Your task to perform on an android device: Go to notification settings Image 0: 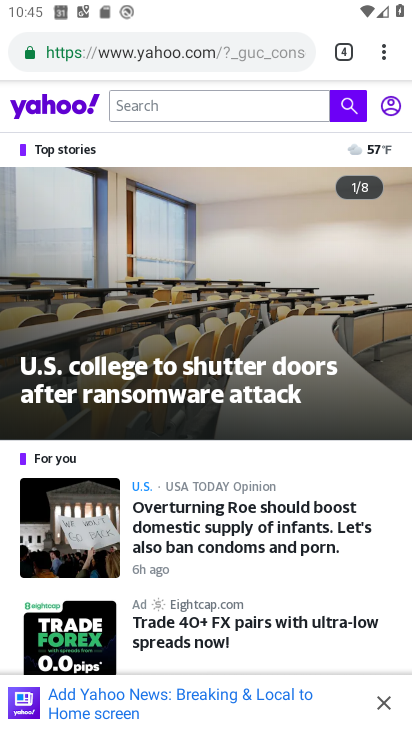
Step 0: press home button
Your task to perform on an android device: Go to notification settings Image 1: 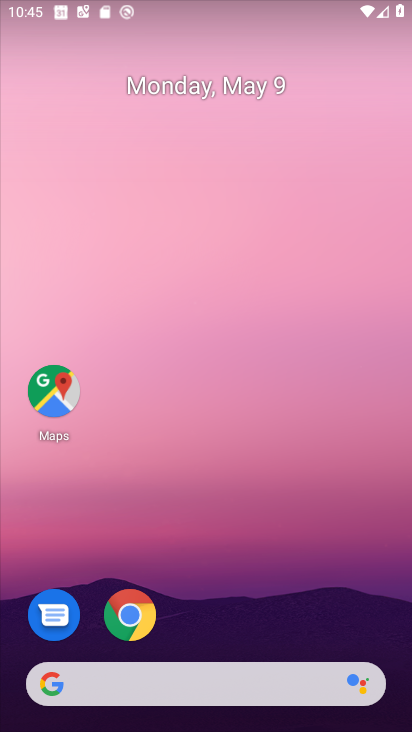
Step 1: drag from (251, 714) to (302, 232)
Your task to perform on an android device: Go to notification settings Image 2: 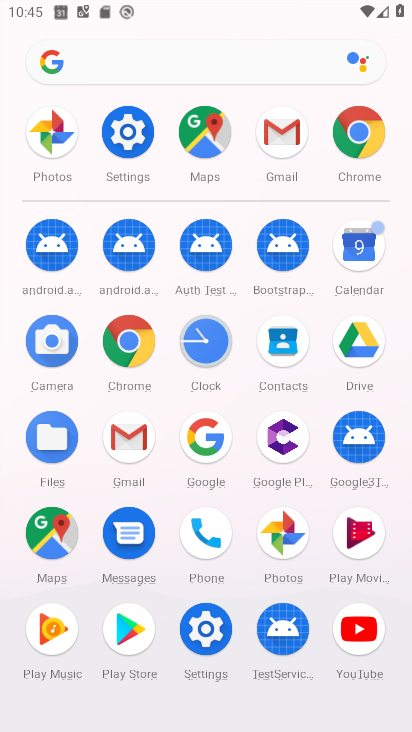
Step 2: click (141, 139)
Your task to perform on an android device: Go to notification settings Image 3: 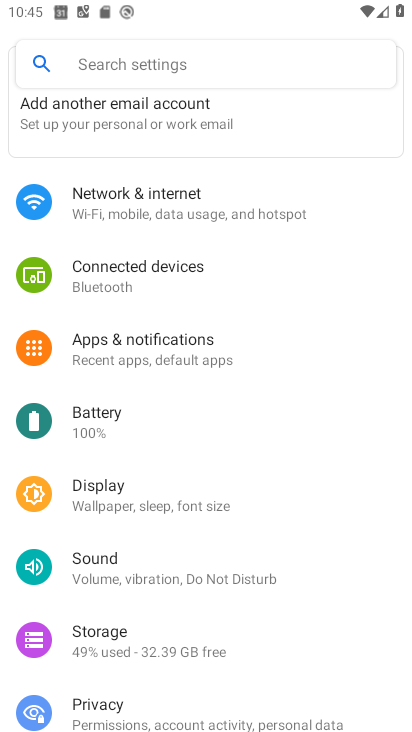
Step 3: click (111, 63)
Your task to perform on an android device: Go to notification settings Image 4: 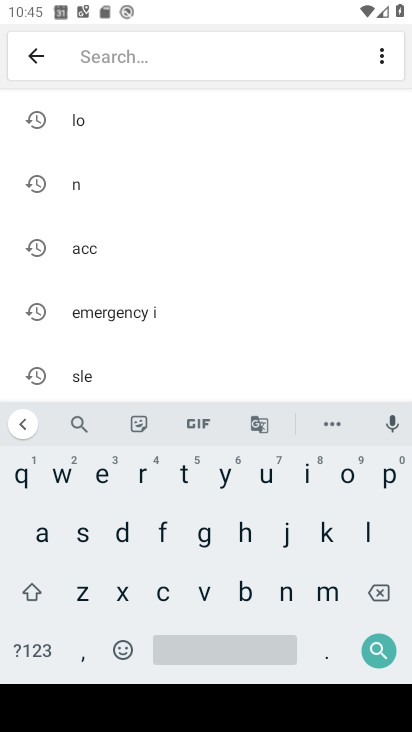
Step 4: click (286, 590)
Your task to perform on an android device: Go to notification settings Image 5: 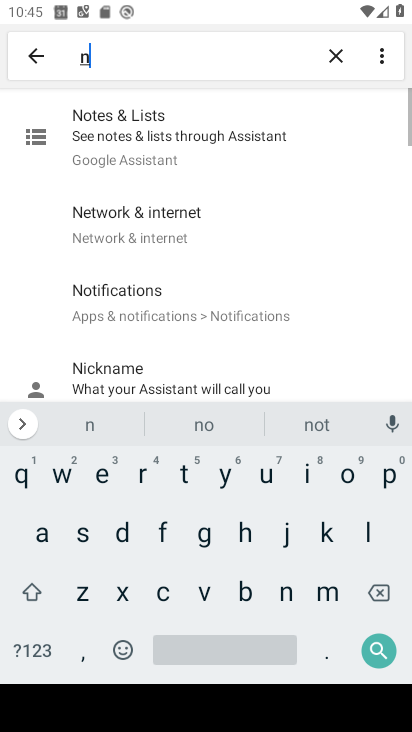
Step 5: click (343, 478)
Your task to perform on an android device: Go to notification settings Image 6: 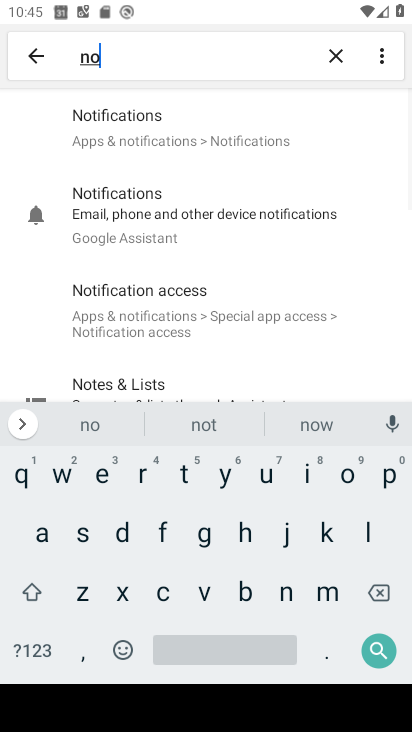
Step 6: click (148, 154)
Your task to perform on an android device: Go to notification settings Image 7: 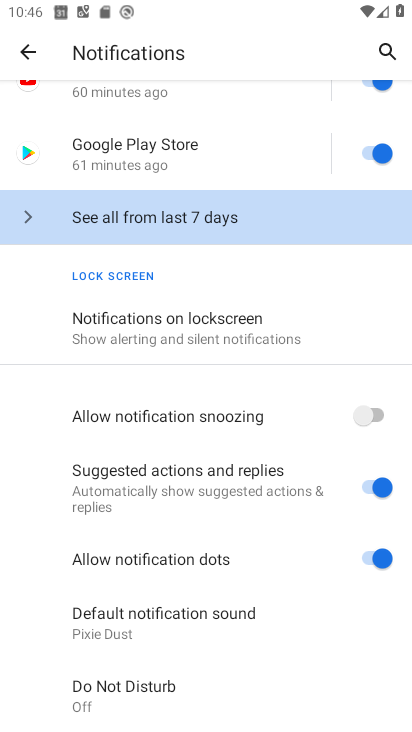
Step 7: click (96, 326)
Your task to perform on an android device: Go to notification settings Image 8: 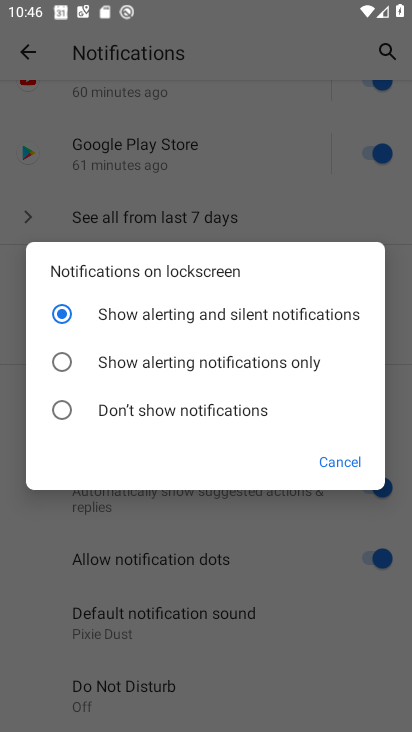
Step 8: task complete